Your task to perform on an android device: Open Amazon Image 0: 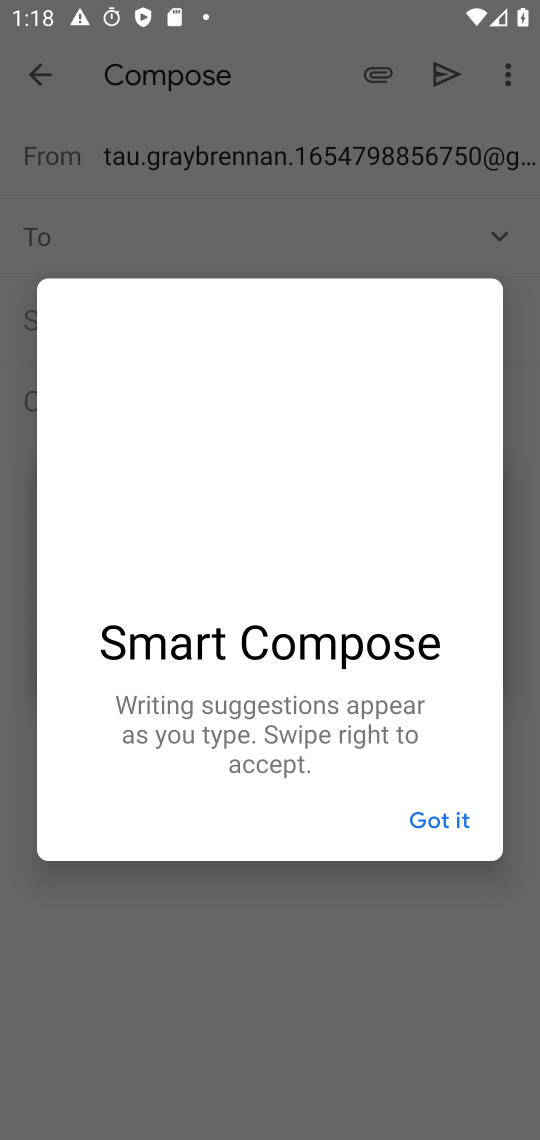
Step 0: press back button
Your task to perform on an android device: Open Amazon Image 1: 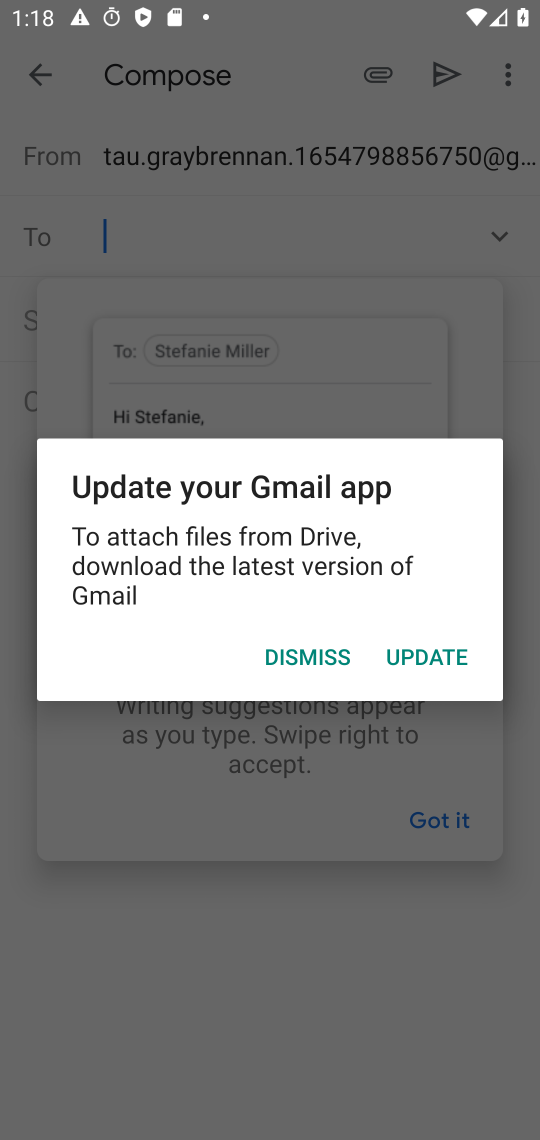
Step 1: press home button
Your task to perform on an android device: Open Amazon Image 2: 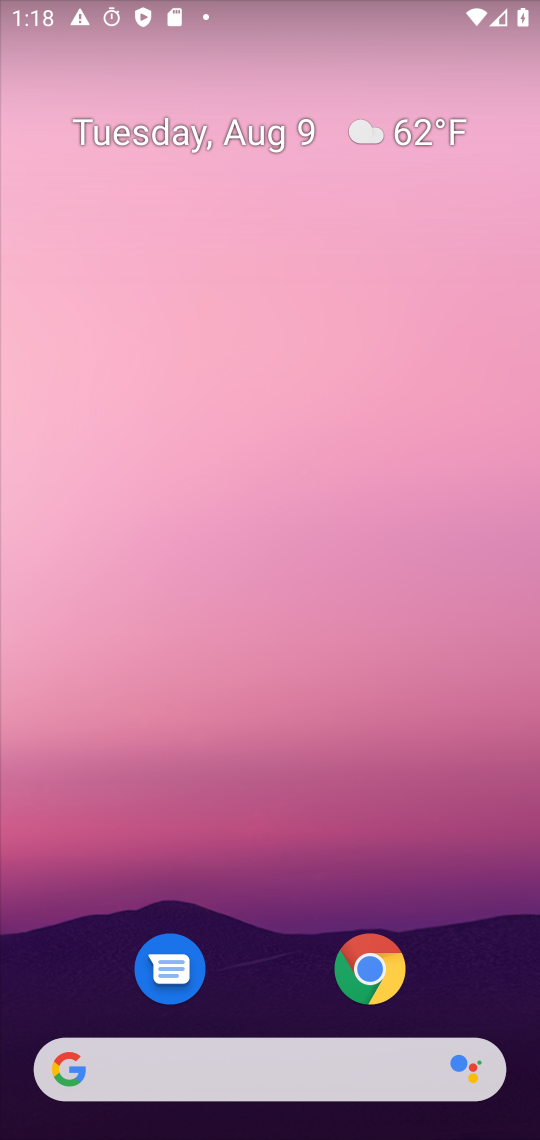
Step 2: click (366, 989)
Your task to perform on an android device: Open Amazon Image 3: 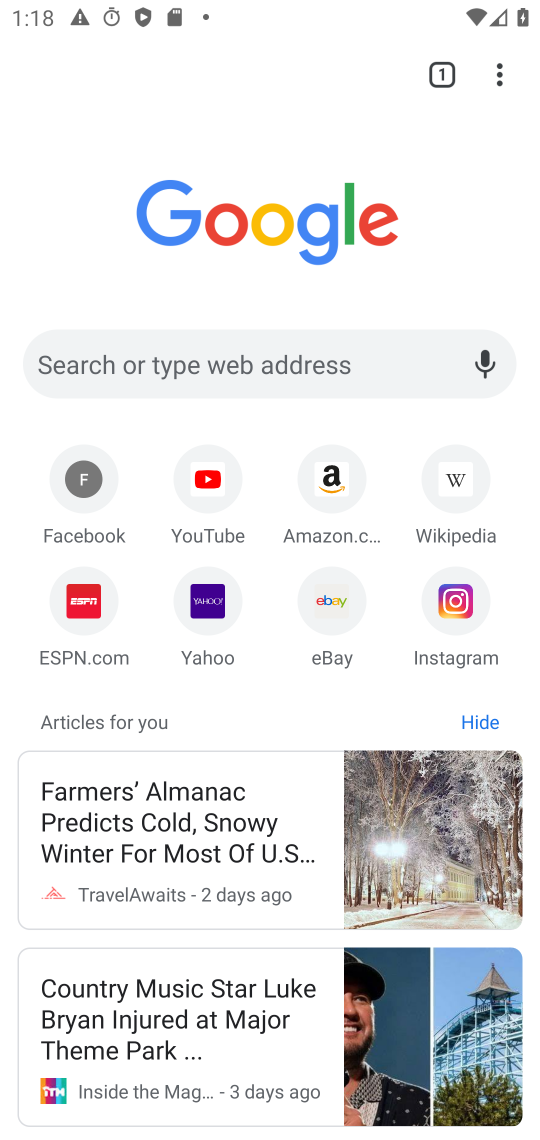
Step 3: click (315, 478)
Your task to perform on an android device: Open Amazon Image 4: 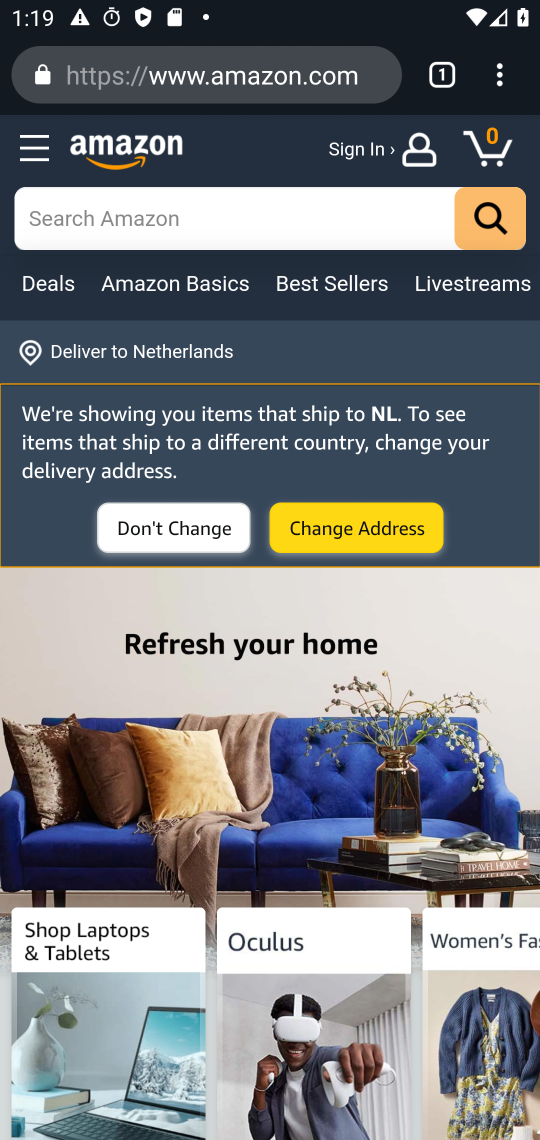
Step 4: task complete